Your task to perform on an android device: move a message to another label in the gmail app Image 0: 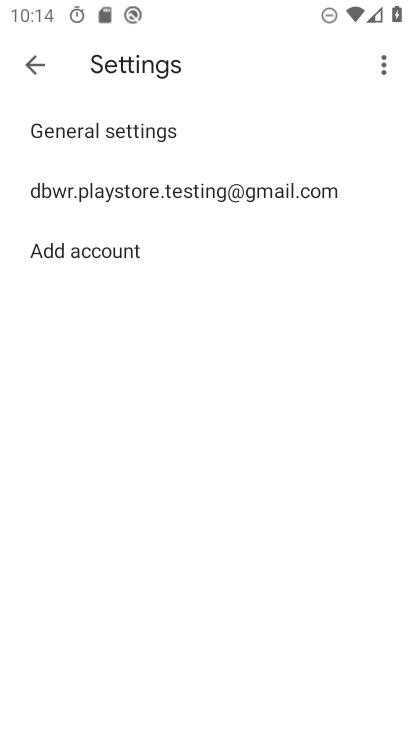
Step 0: press home button
Your task to perform on an android device: move a message to another label in the gmail app Image 1: 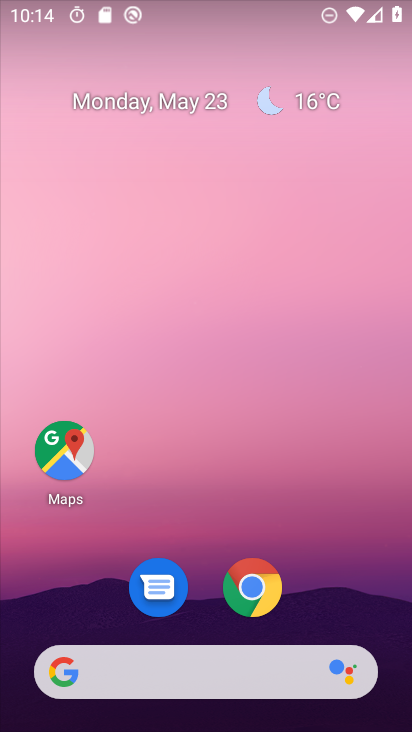
Step 1: drag from (200, 536) to (206, 169)
Your task to perform on an android device: move a message to another label in the gmail app Image 2: 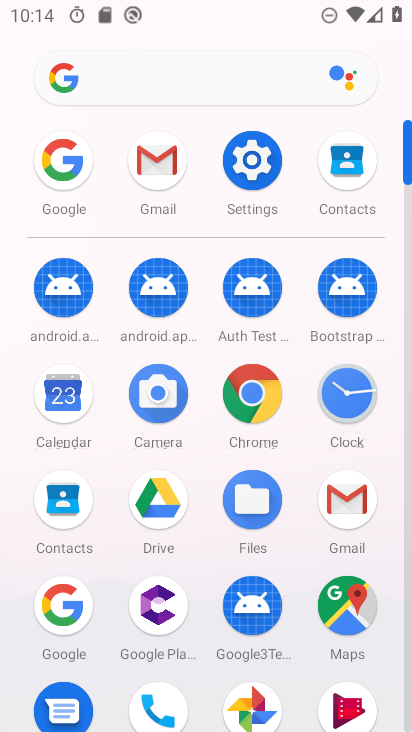
Step 2: click (149, 154)
Your task to perform on an android device: move a message to another label in the gmail app Image 3: 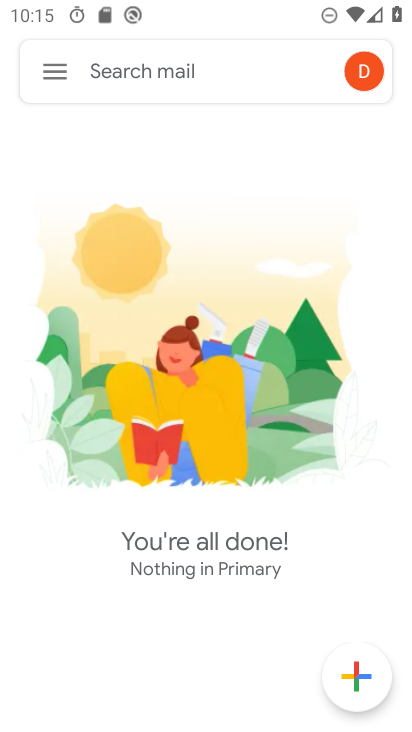
Step 3: click (68, 68)
Your task to perform on an android device: move a message to another label in the gmail app Image 4: 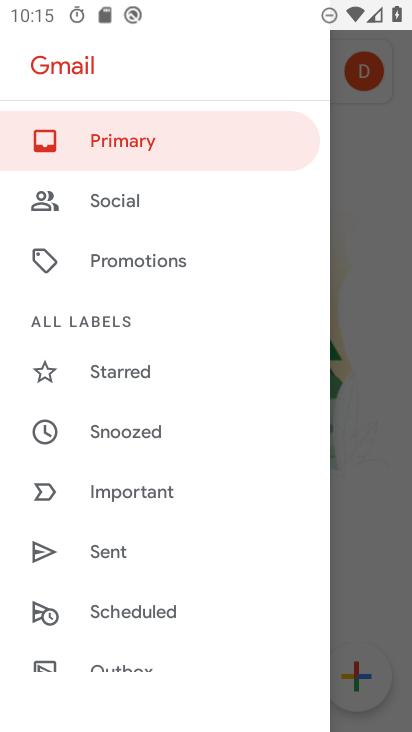
Step 4: drag from (110, 645) to (189, 184)
Your task to perform on an android device: move a message to another label in the gmail app Image 5: 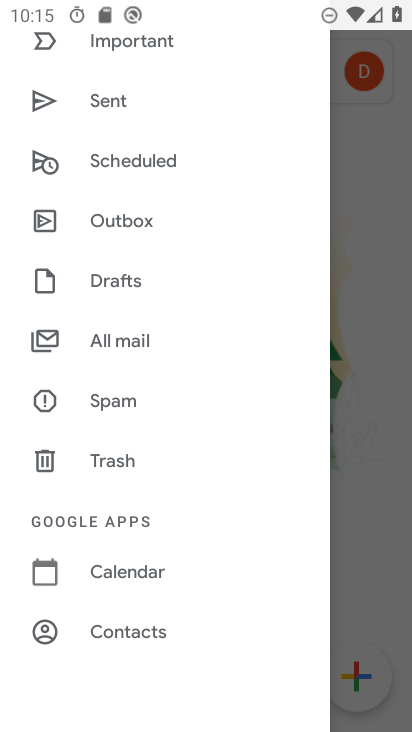
Step 5: click (131, 334)
Your task to perform on an android device: move a message to another label in the gmail app Image 6: 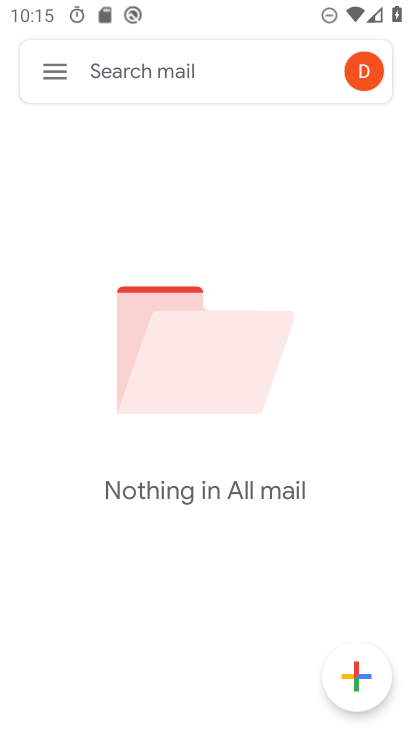
Step 6: task complete